Your task to perform on an android device: Open Chrome and go to the settings page Image 0: 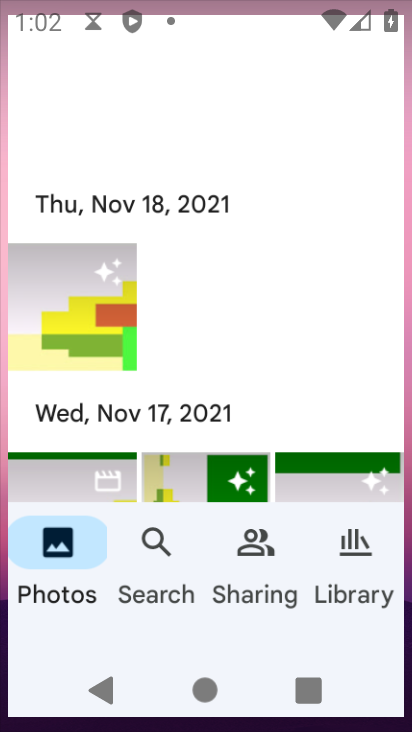
Step 0: drag from (277, 358) to (277, 28)
Your task to perform on an android device: Open Chrome and go to the settings page Image 1: 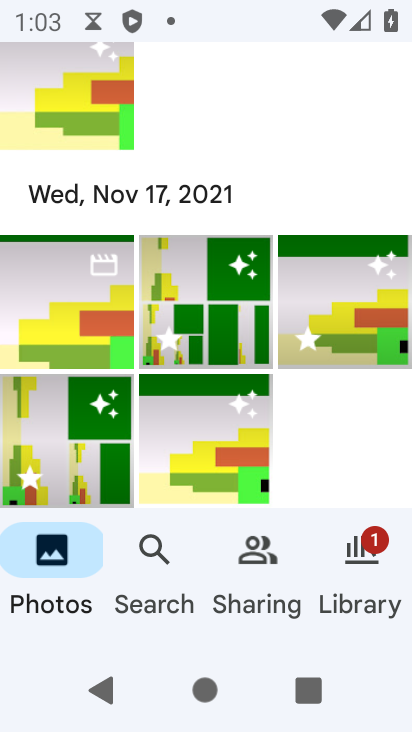
Step 1: press home button
Your task to perform on an android device: Open Chrome and go to the settings page Image 2: 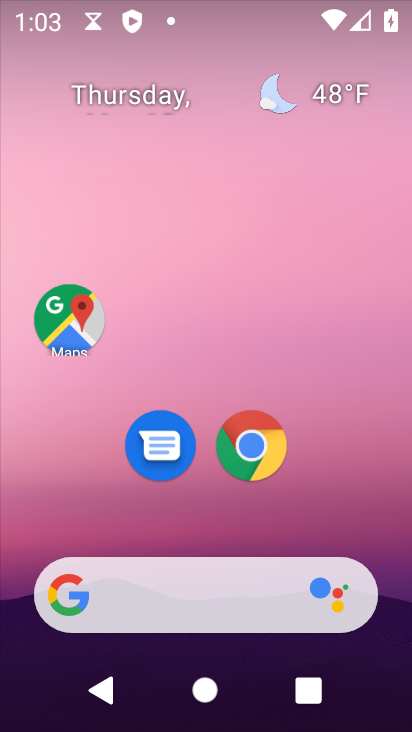
Step 2: click (254, 451)
Your task to perform on an android device: Open Chrome and go to the settings page Image 3: 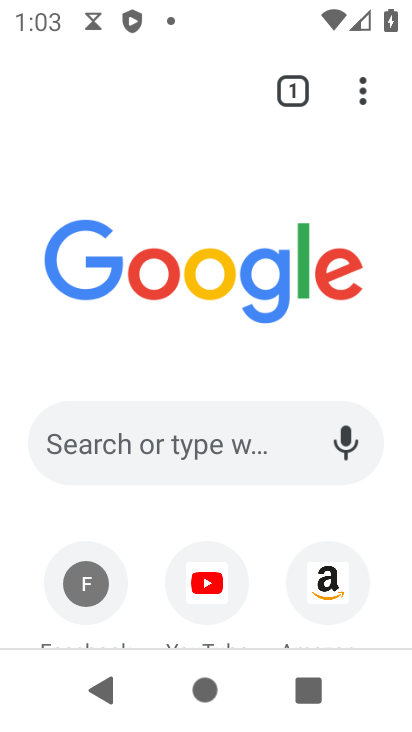
Step 3: click (369, 104)
Your task to perform on an android device: Open Chrome and go to the settings page Image 4: 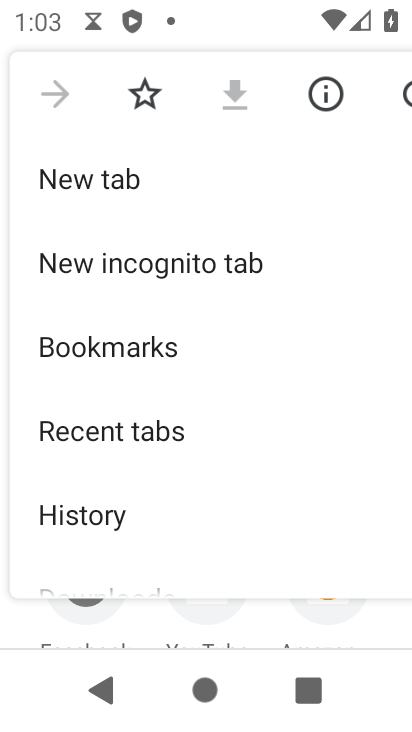
Step 4: drag from (159, 548) to (168, 92)
Your task to perform on an android device: Open Chrome and go to the settings page Image 5: 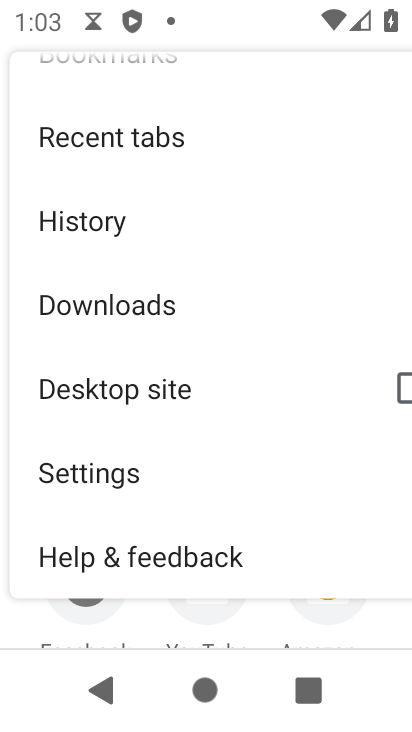
Step 5: click (132, 469)
Your task to perform on an android device: Open Chrome and go to the settings page Image 6: 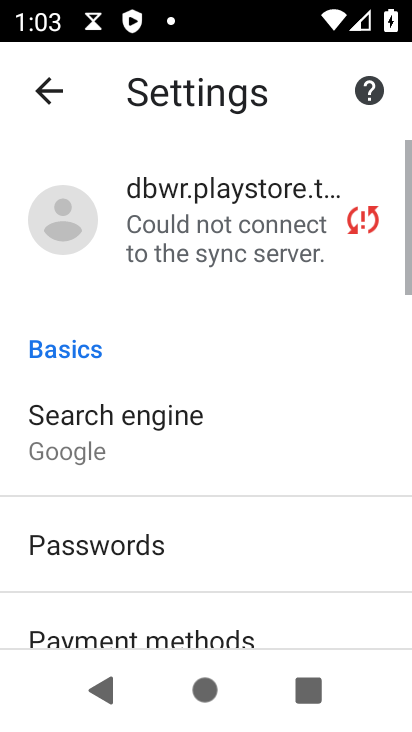
Step 6: task complete